Your task to perform on an android device: Search for "bose soundlink mini" on costco, select the first entry, and add it to the cart. Image 0: 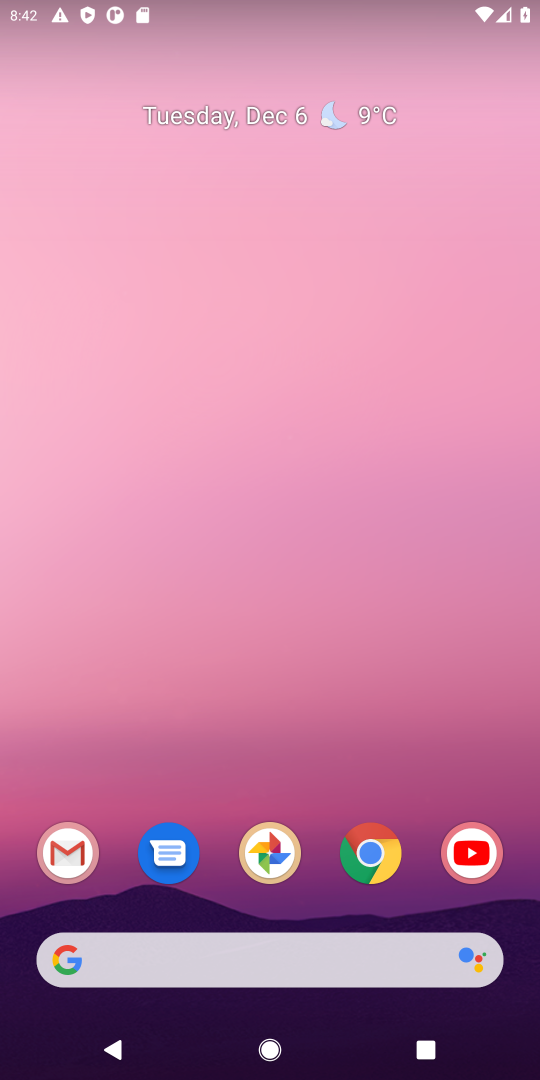
Step 0: task complete